Your task to perform on an android device: change the clock style Image 0: 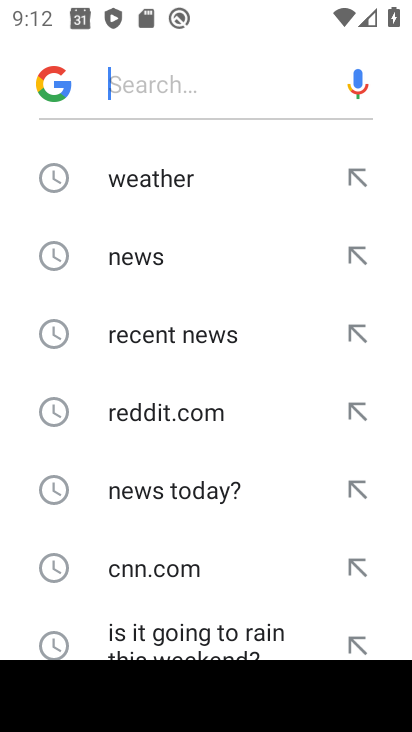
Step 0: press back button
Your task to perform on an android device: change the clock style Image 1: 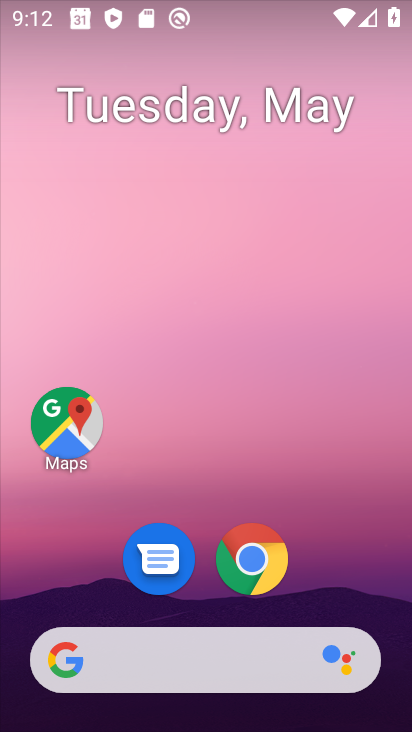
Step 1: drag from (359, 573) to (205, 14)
Your task to perform on an android device: change the clock style Image 2: 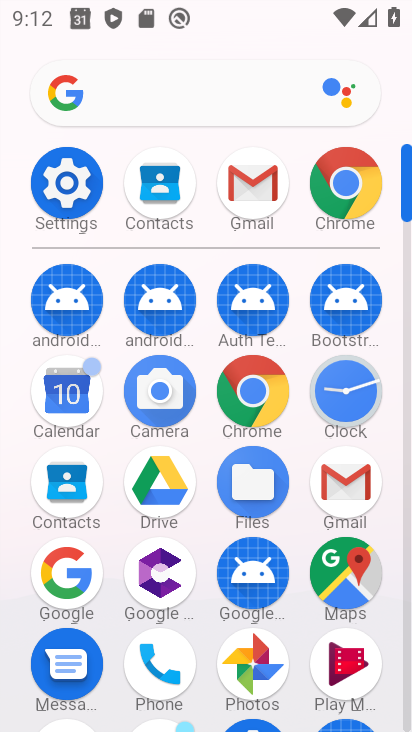
Step 2: click (355, 412)
Your task to perform on an android device: change the clock style Image 3: 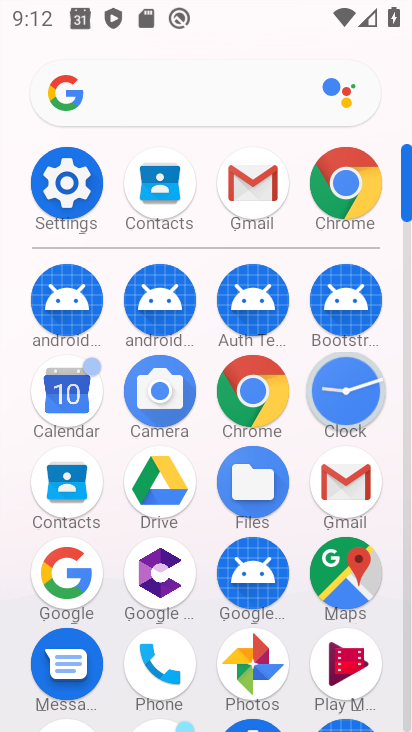
Step 3: click (352, 404)
Your task to perform on an android device: change the clock style Image 4: 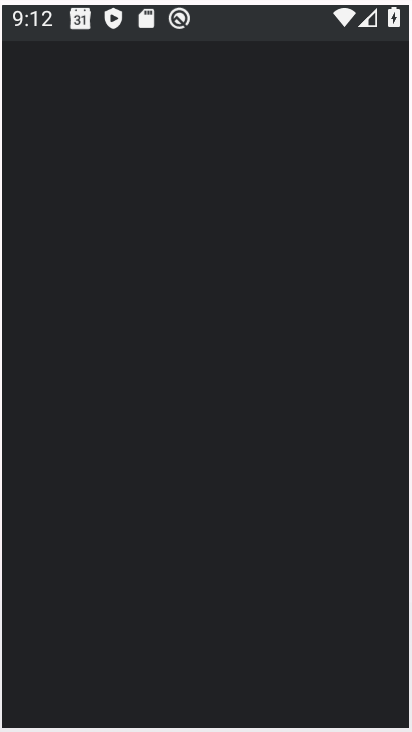
Step 4: click (352, 404)
Your task to perform on an android device: change the clock style Image 5: 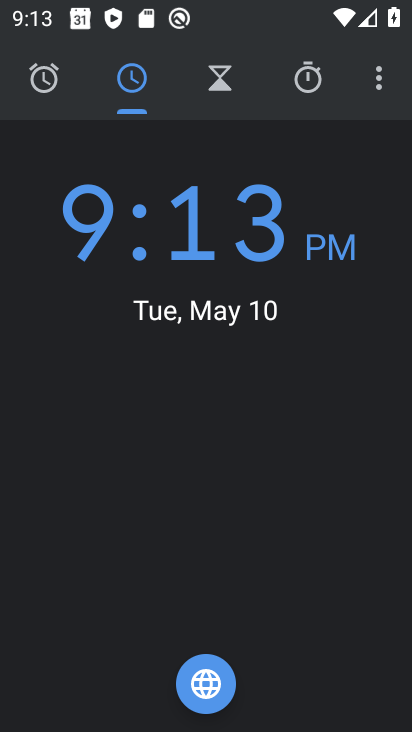
Step 5: click (375, 79)
Your task to perform on an android device: change the clock style Image 6: 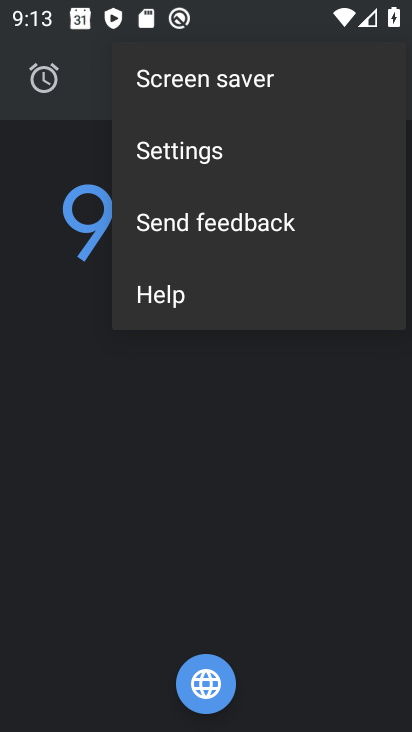
Step 6: click (199, 150)
Your task to perform on an android device: change the clock style Image 7: 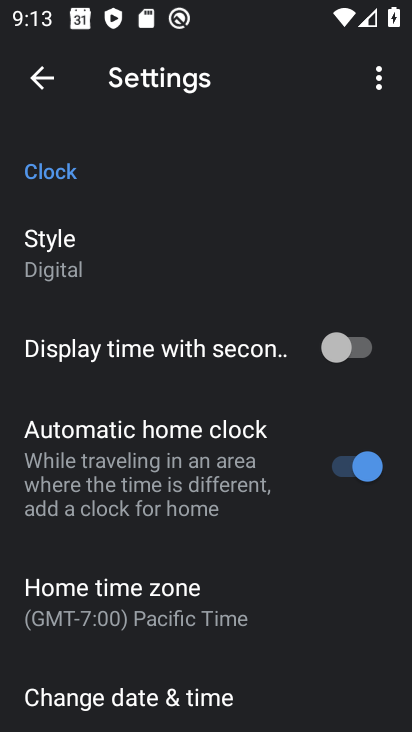
Step 7: click (75, 248)
Your task to perform on an android device: change the clock style Image 8: 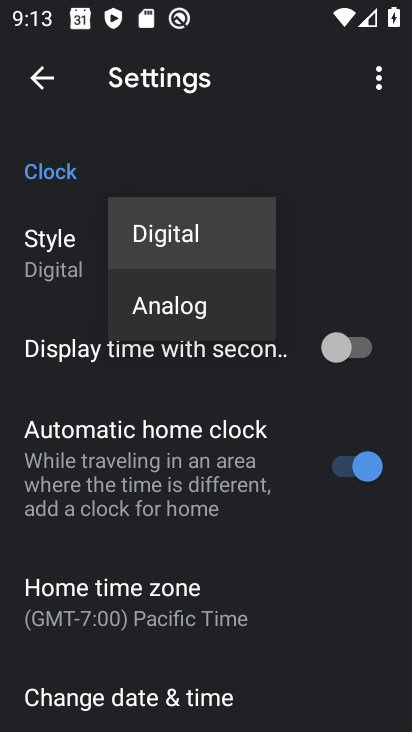
Step 8: click (198, 304)
Your task to perform on an android device: change the clock style Image 9: 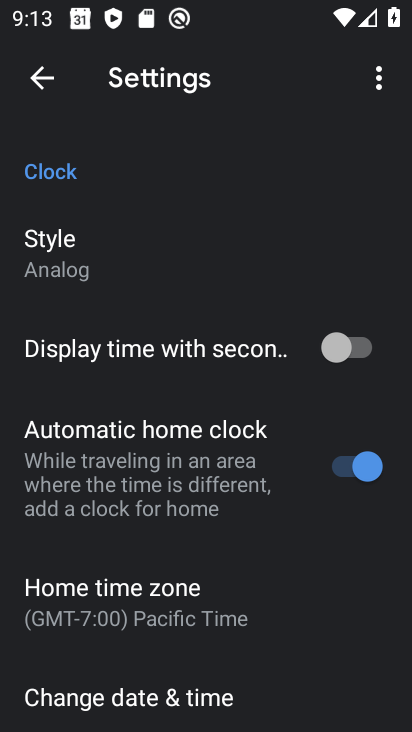
Step 9: task complete